Your task to perform on an android device: check storage Image 0: 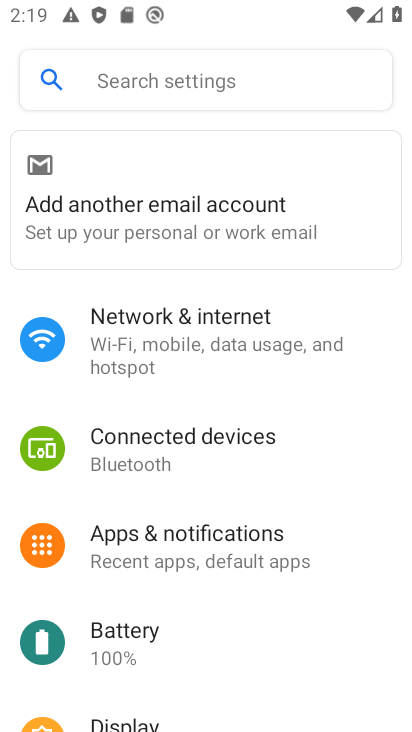
Step 0: drag from (49, 608) to (219, 176)
Your task to perform on an android device: check storage Image 1: 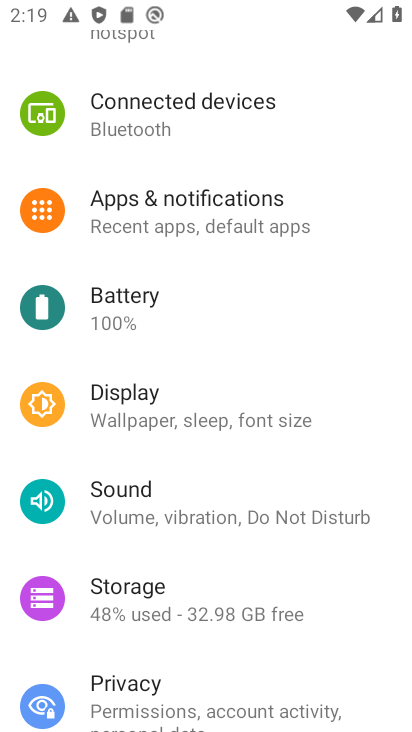
Step 1: click (129, 608)
Your task to perform on an android device: check storage Image 2: 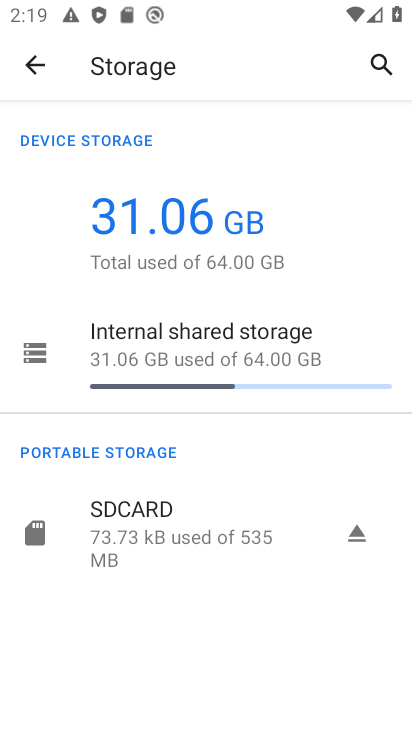
Step 2: task complete